Your task to perform on an android device: turn on notifications settings in the gmail app Image 0: 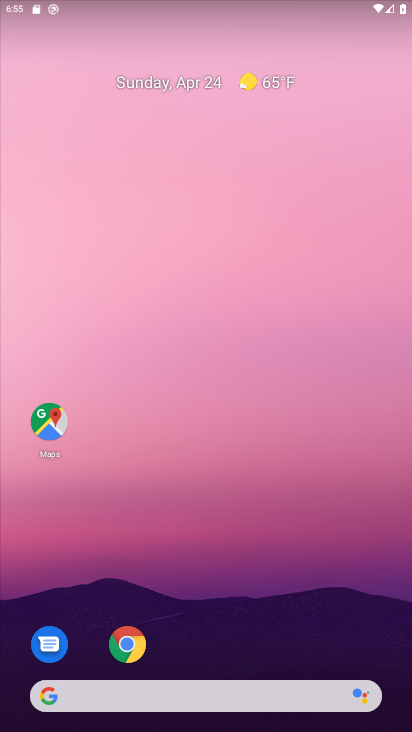
Step 0: drag from (221, 660) to (226, 120)
Your task to perform on an android device: turn on notifications settings in the gmail app Image 1: 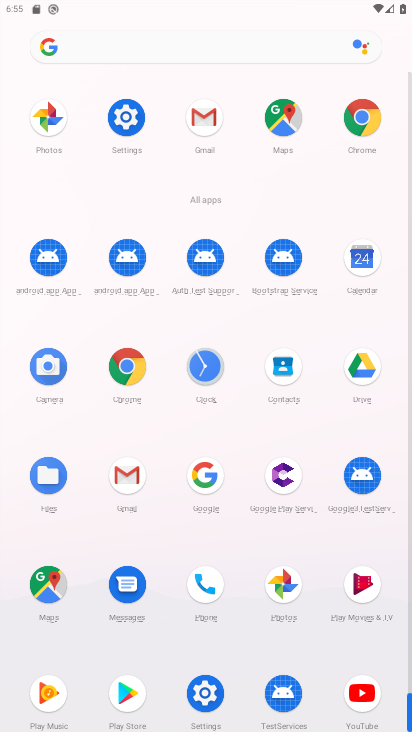
Step 1: click (127, 467)
Your task to perform on an android device: turn on notifications settings in the gmail app Image 2: 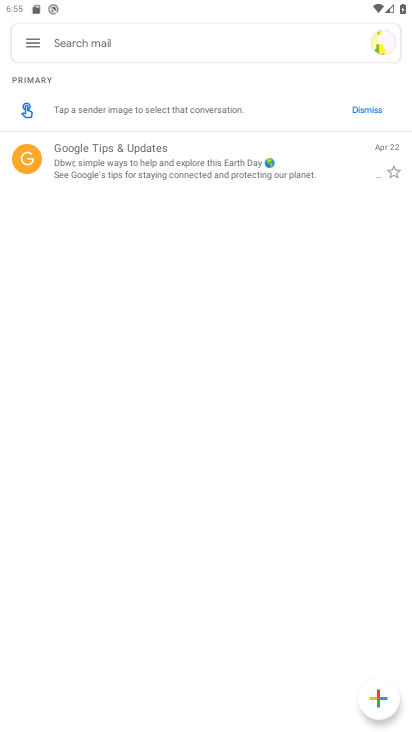
Step 2: click (32, 41)
Your task to perform on an android device: turn on notifications settings in the gmail app Image 3: 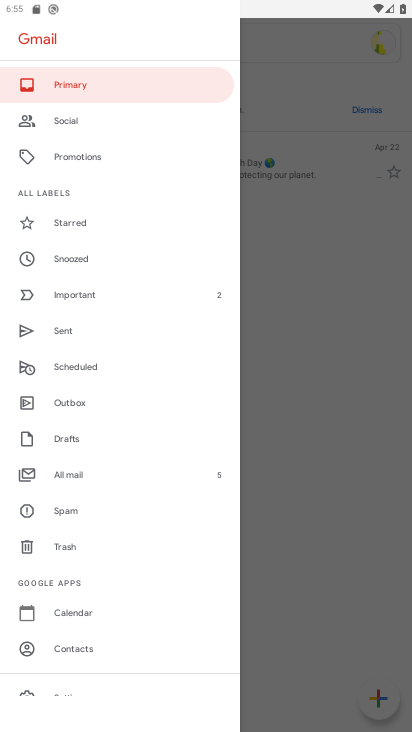
Step 3: drag from (105, 647) to (89, 250)
Your task to perform on an android device: turn on notifications settings in the gmail app Image 4: 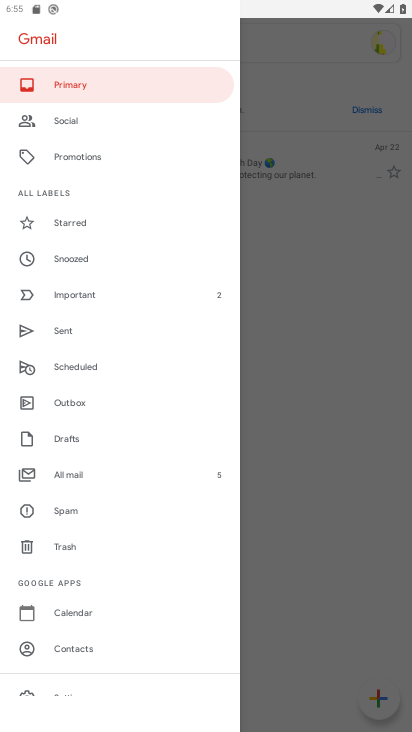
Step 4: drag from (95, 650) to (127, 230)
Your task to perform on an android device: turn on notifications settings in the gmail app Image 5: 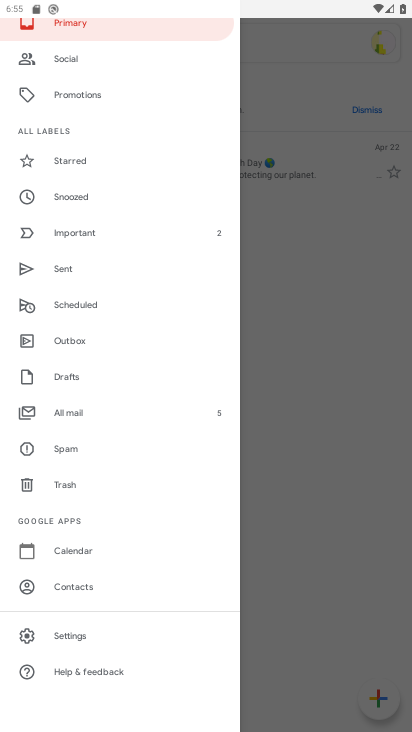
Step 5: click (90, 635)
Your task to perform on an android device: turn on notifications settings in the gmail app Image 6: 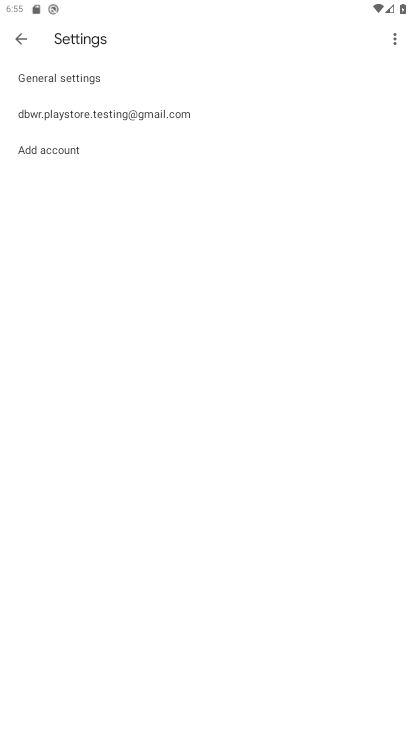
Step 6: click (109, 78)
Your task to perform on an android device: turn on notifications settings in the gmail app Image 7: 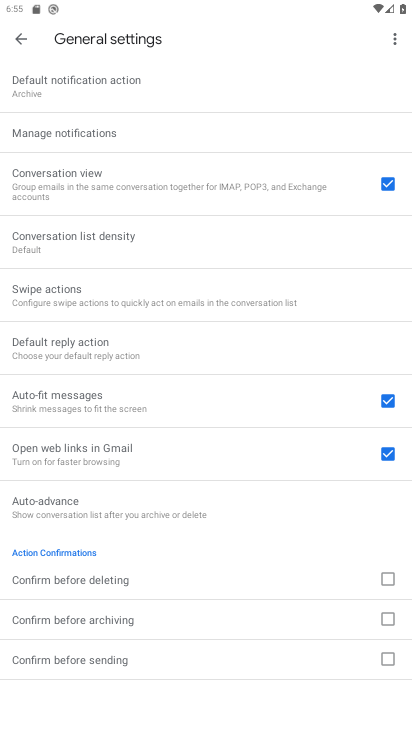
Step 7: click (135, 129)
Your task to perform on an android device: turn on notifications settings in the gmail app Image 8: 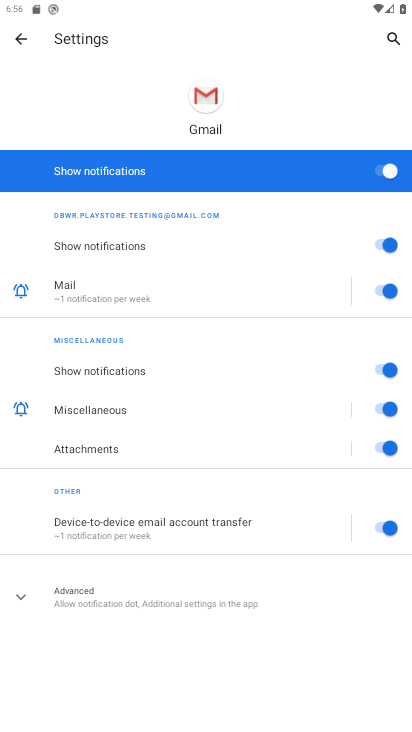
Step 8: task complete